Your task to perform on an android device: toggle priority inbox in the gmail app Image 0: 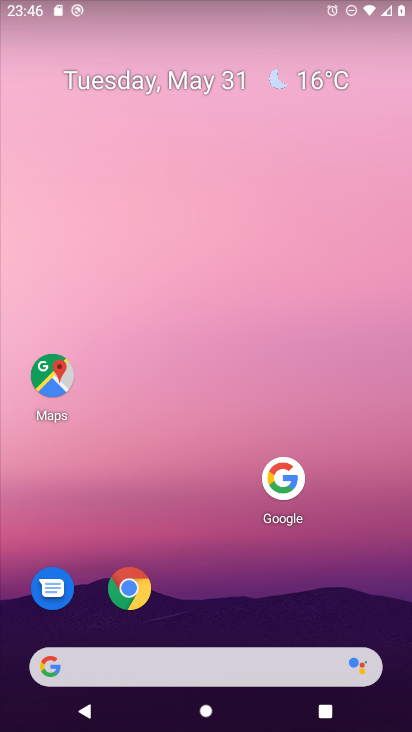
Step 0: press home button
Your task to perform on an android device: toggle priority inbox in the gmail app Image 1: 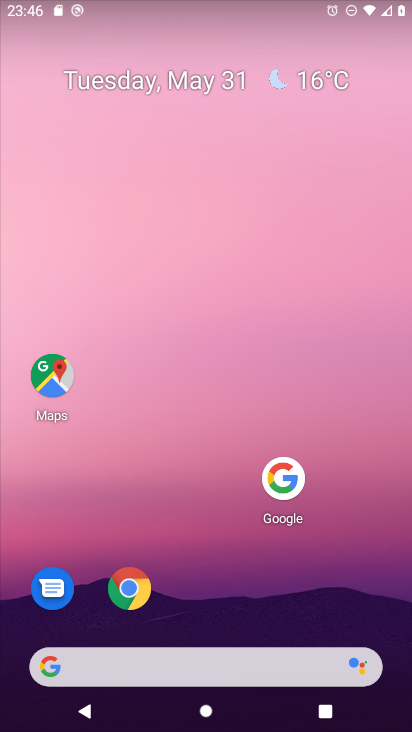
Step 1: drag from (217, 586) to (286, 221)
Your task to perform on an android device: toggle priority inbox in the gmail app Image 2: 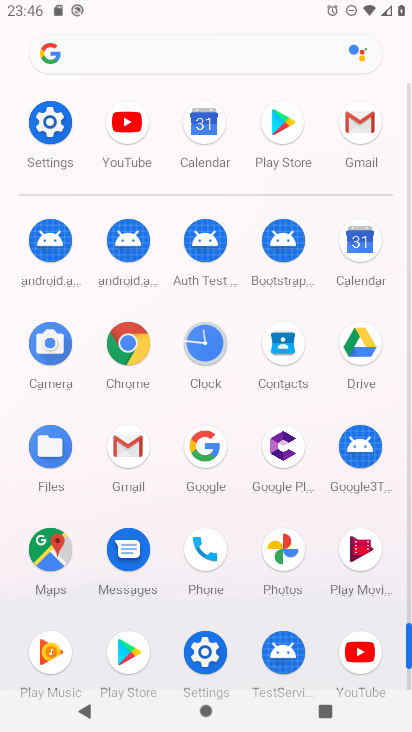
Step 2: click (357, 129)
Your task to perform on an android device: toggle priority inbox in the gmail app Image 3: 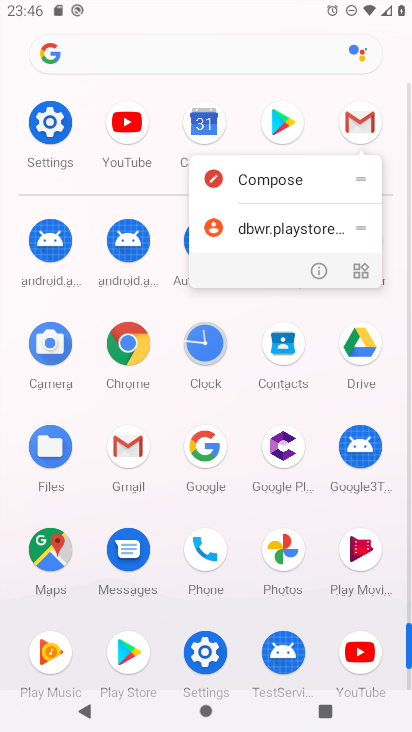
Step 3: click (366, 119)
Your task to perform on an android device: toggle priority inbox in the gmail app Image 4: 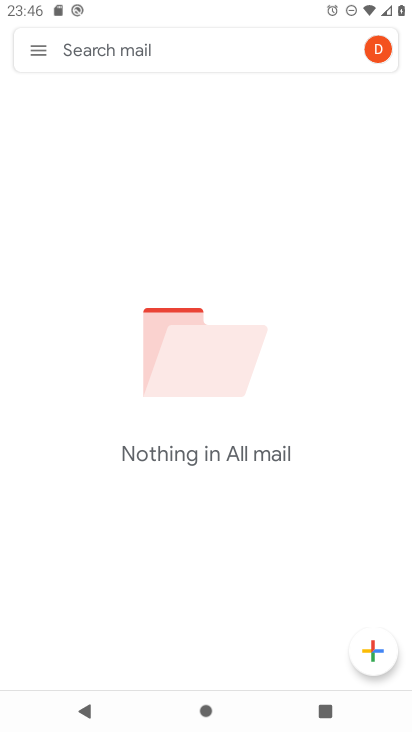
Step 4: click (40, 44)
Your task to perform on an android device: toggle priority inbox in the gmail app Image 5: 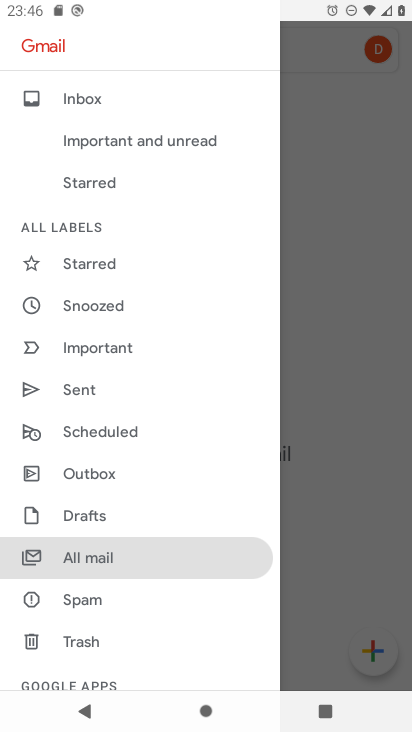
Step 5: drag from (161, 640) to (239, 201)
Your task to perform on an android device: toggle priority inbox in the gmail app Image 6: 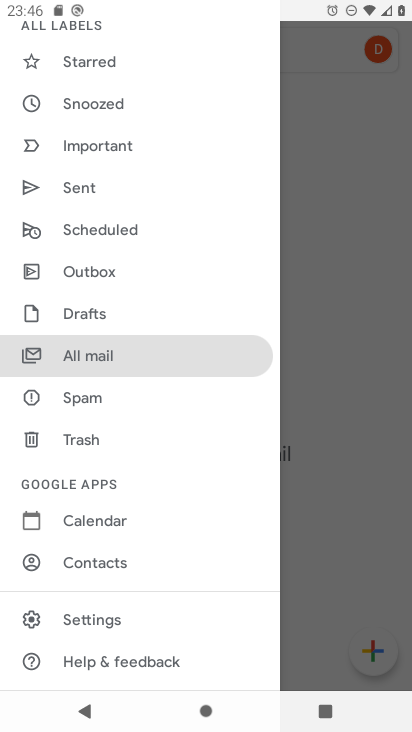
Step 6: click (89, 618)
Your task to perform on an android device: toggle priority inbox in the gmail app Image 7: 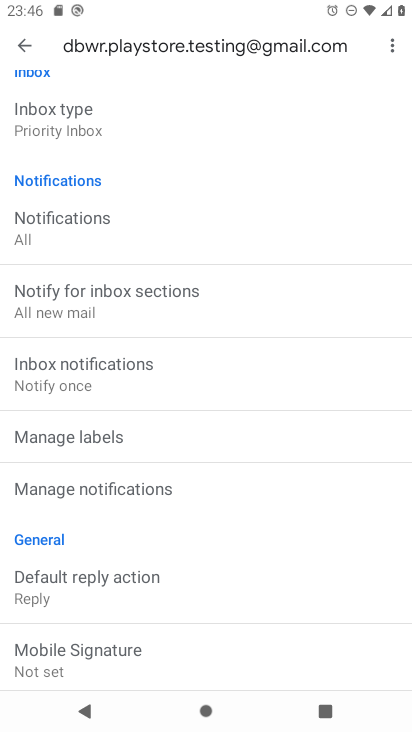
Step 7: click (75, 129)
Your task to perform on an android device: toggle priority inbox in the gmail app Image 8: 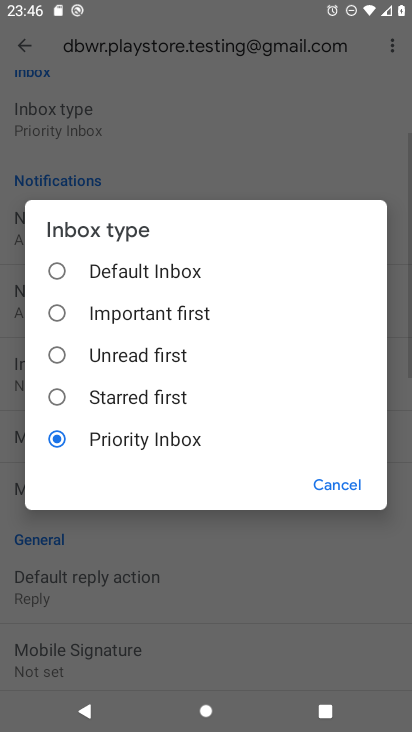
Step 8: click (62, 262)
Your task to perform on an android device: toggle priority inbox in the gmail app Image 9: 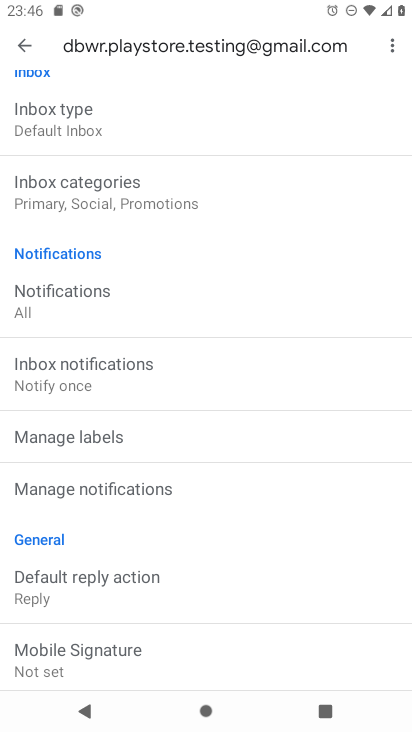
Step 9: task complete